Your task to perform on an android device: change alarm snooze length Image 0: 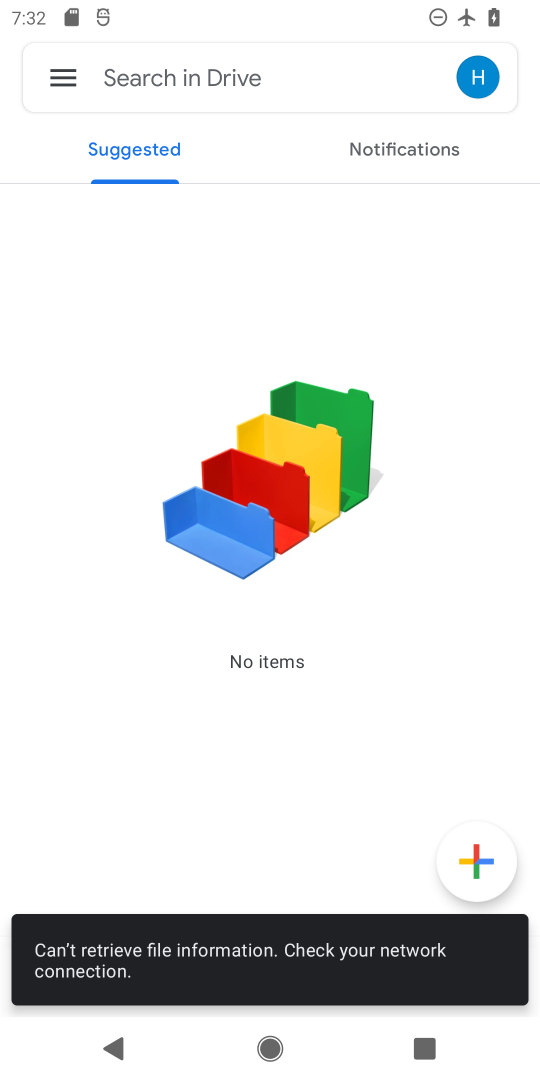
Step 0: press back button
Your task to perform on an android device: change alarm snooze length Image 1: 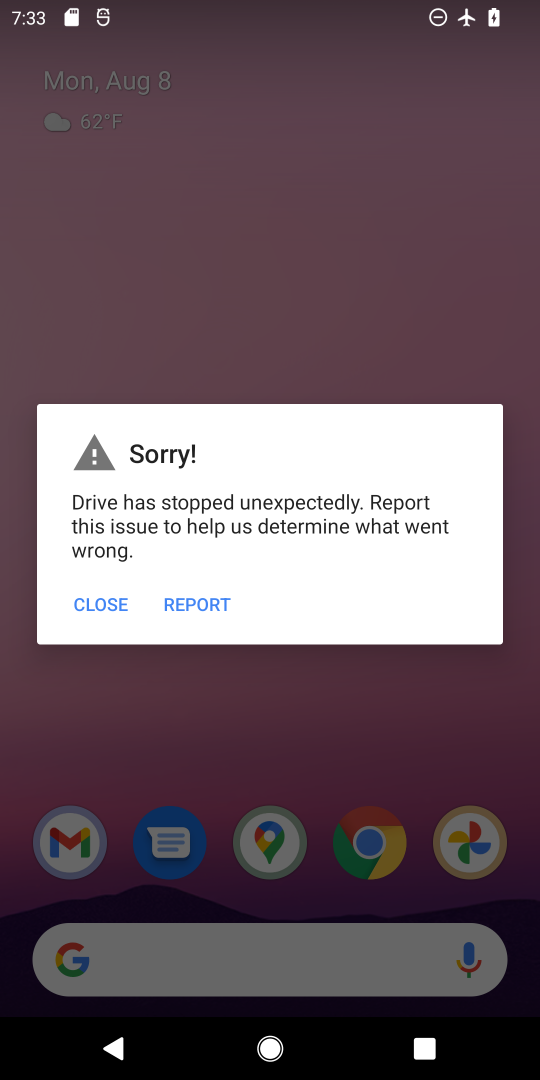
Step 1: click (82, 603)
Your task to perform on an android device: change alarm snooze length Image 2: 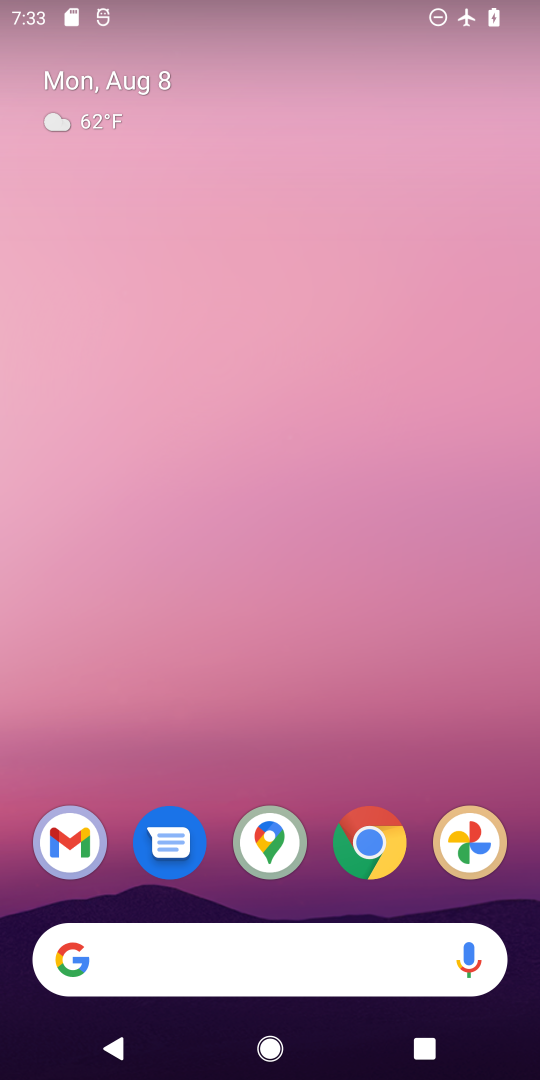
Step 2: drag from (269, 932) to (514, 501)
Your task to perform on an android device: change alarm snooze length Image 3: 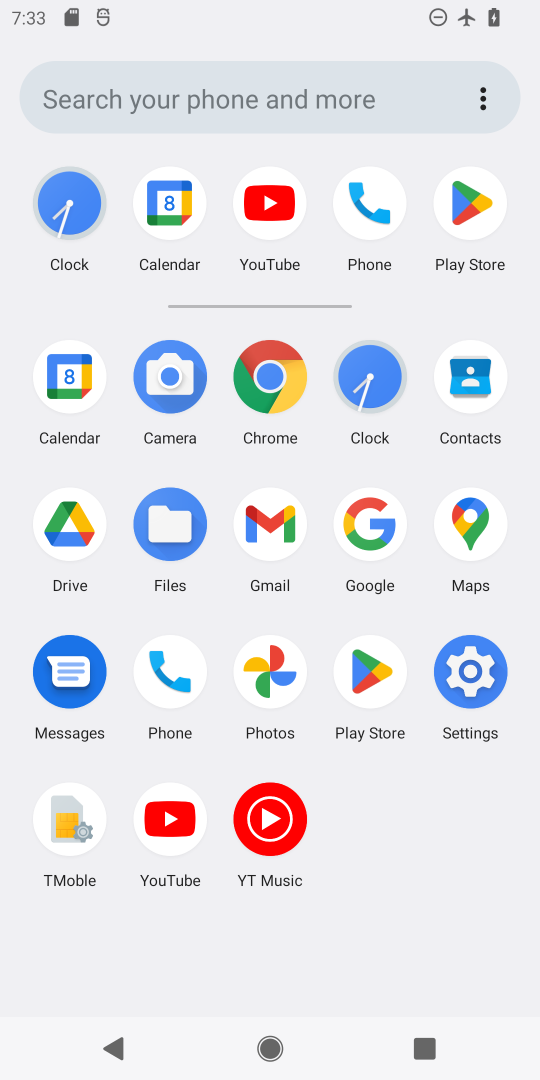
Step 3: click (384, 403)
Your task to perform on an android device: change alarm snooze length Image 4: 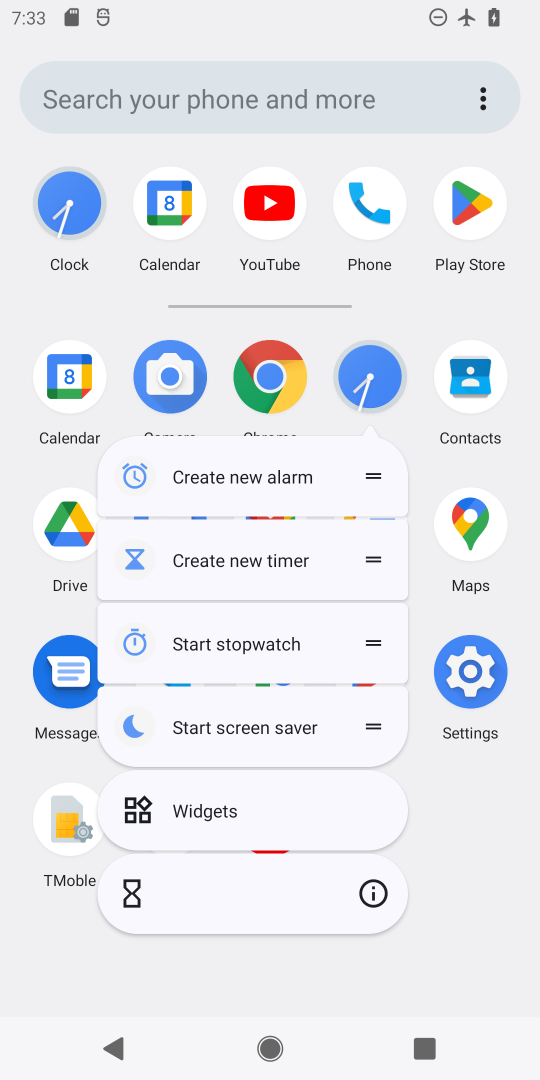
Step 4: click (374, 372)
Your task to perform on an android device: change alarm snooze length Image 5: 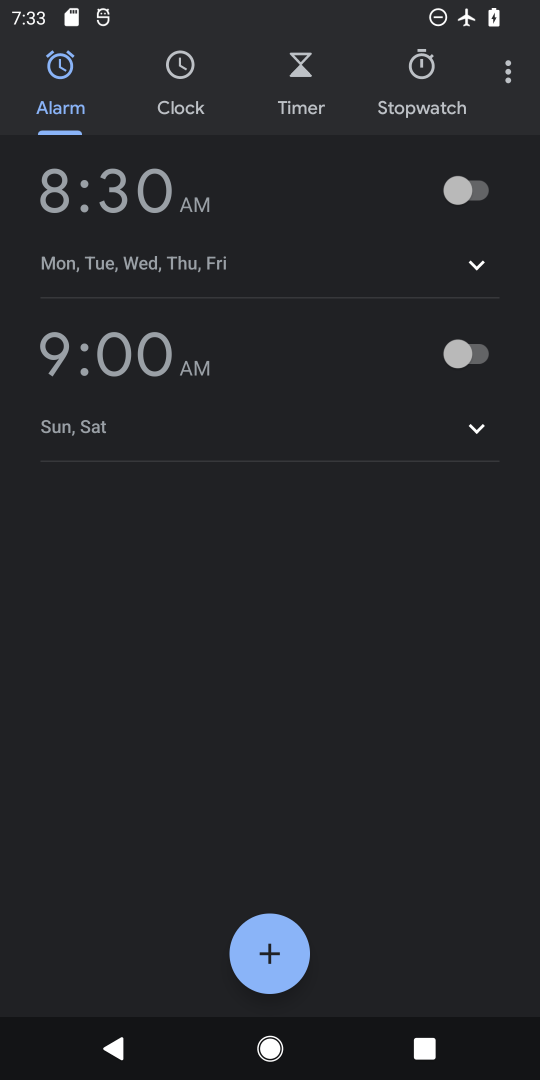
Step 5: drag from (515, 66) to (303, 140)
Your task to perform on an android device: change alarm snooze length Image 6: 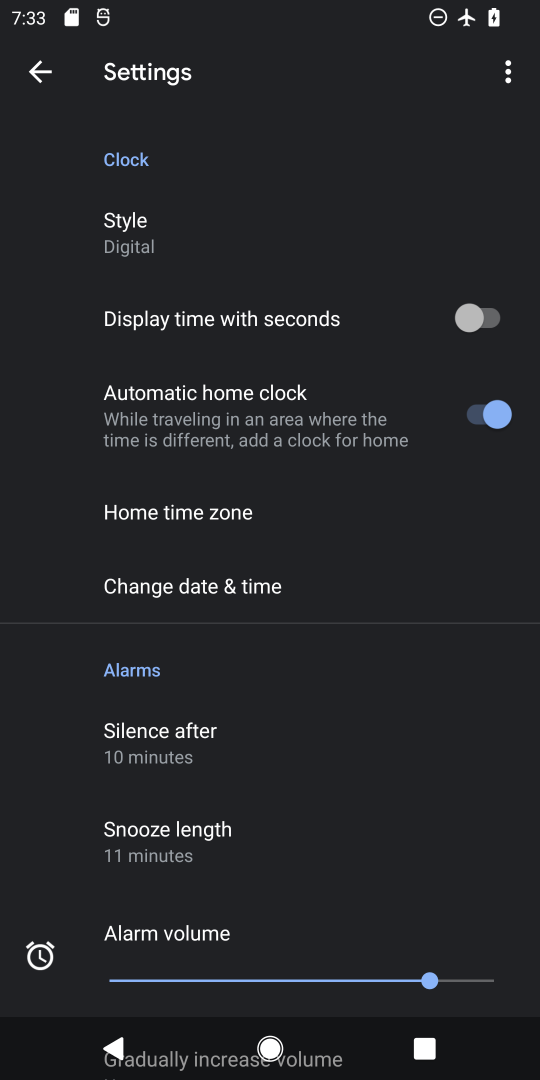
Step 6: click (225, 820)
Your task to perform on an android device: change alarm snooze length Image 7: 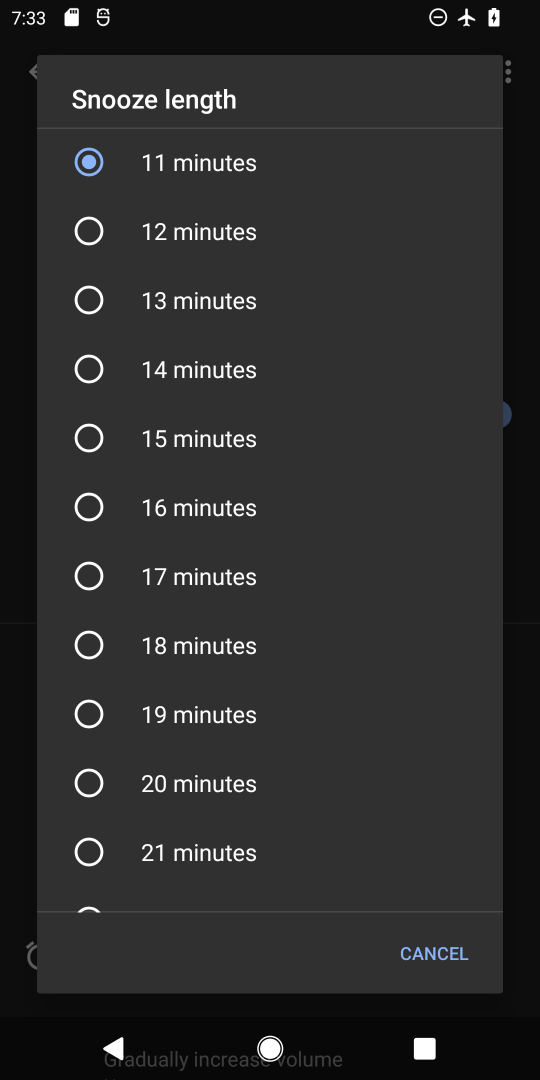
Step 7: click (124, 229)
Your task to perform on an android device: change alarm snooze length Image 8: 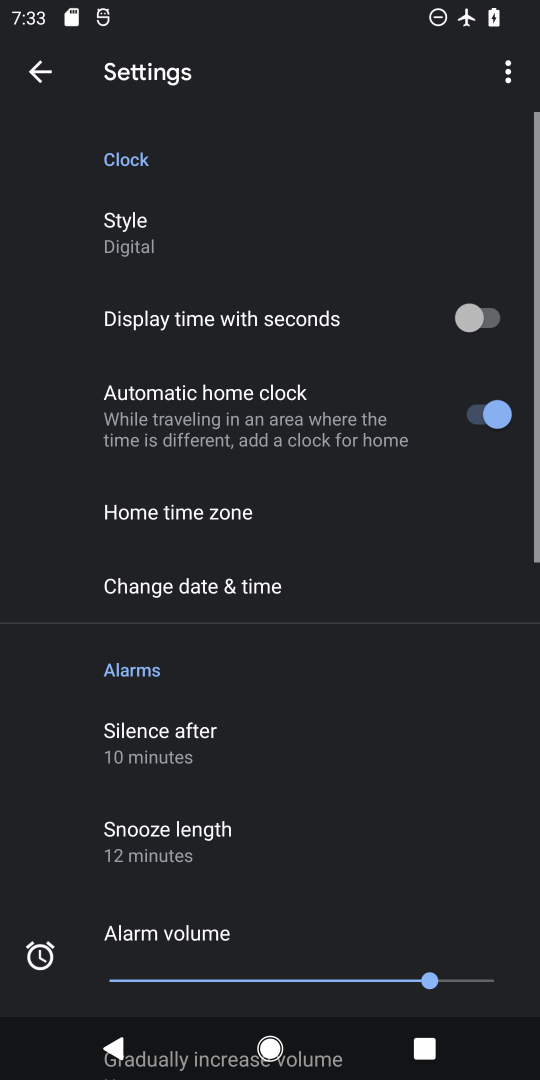
Step 8: task complete